Your task to perform on an android device: change the clock display to show seconds Image 0: 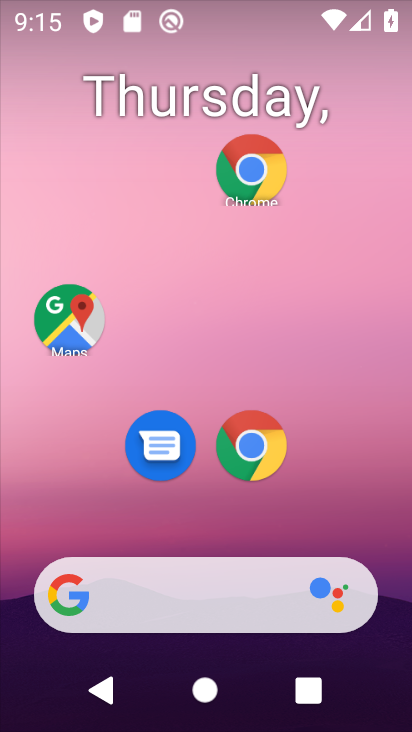
Step 0: drag from (213, 545) to (174, 105)
Your task to perform on an android device: change the clock display to show seconds Image 1: 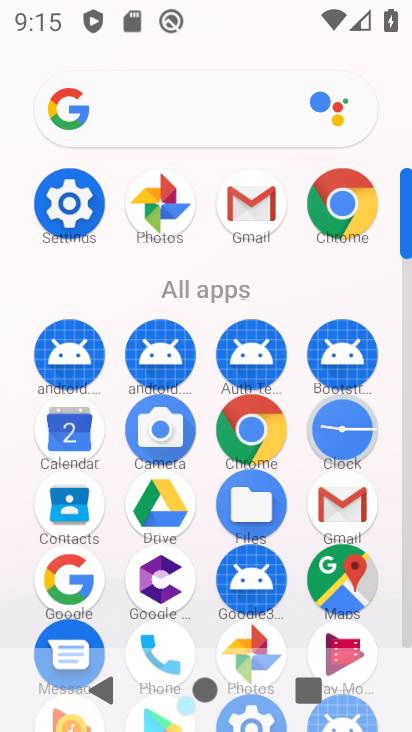
Step 1: click (344, 436)
Your task to perform on an android device: change the clock display to show seconds Image 2: 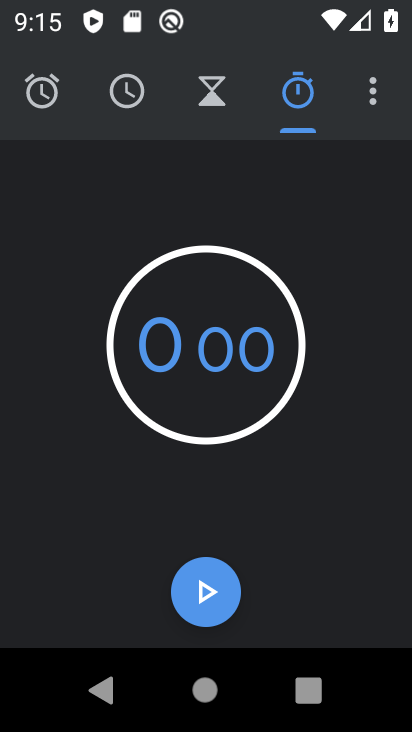
Step 2: click (366, 98)
Your task to perform on an android device: change the clock display to show seconds Image 3: 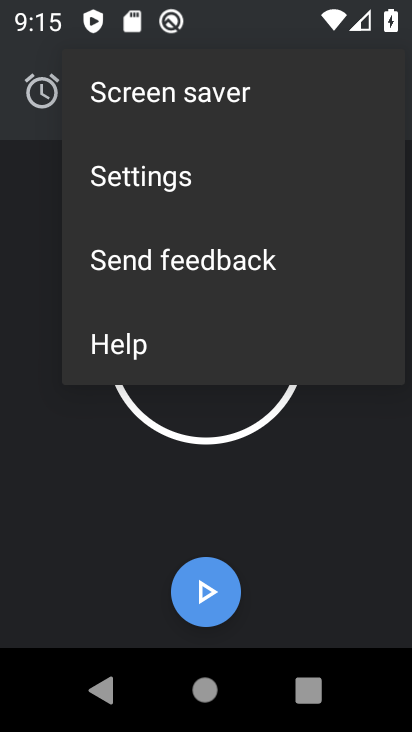
Step 3: click (174, 180)
Your task to perform on an android device: change the clock display to show seconds Image 4: 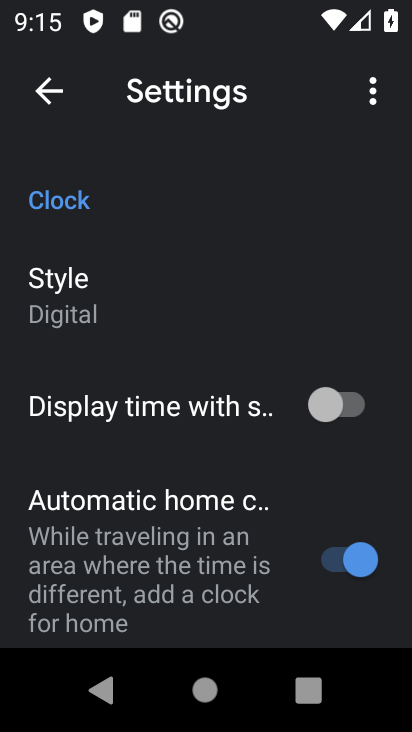
Step 4: click (329, 413)
Your task to perform on an android device: change the clock display to show seconds Image 5: 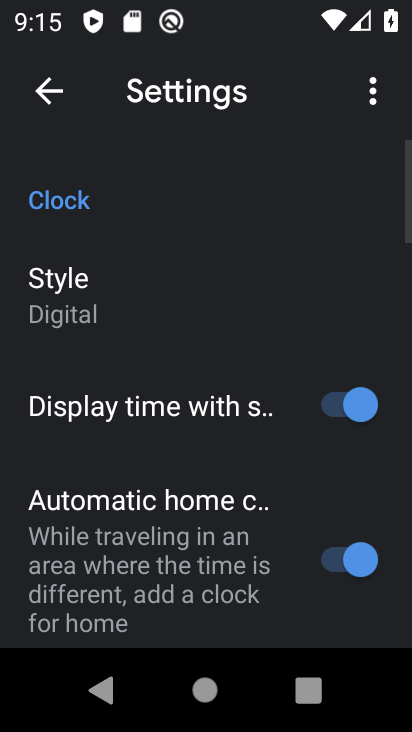
Step 5: task complete